Your task to perform on an android device: Open Chrome and go to settings Image 0: 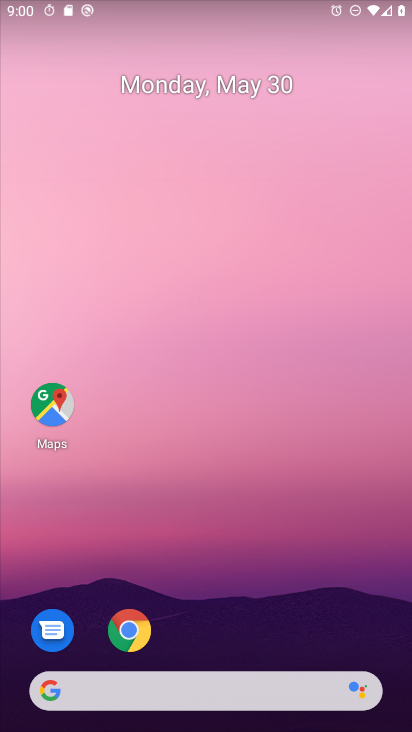
Step 0: drag from (357, 601) to (5, 2)
Your task to perform on an android device: Open Chrome and go to settings Image 1: 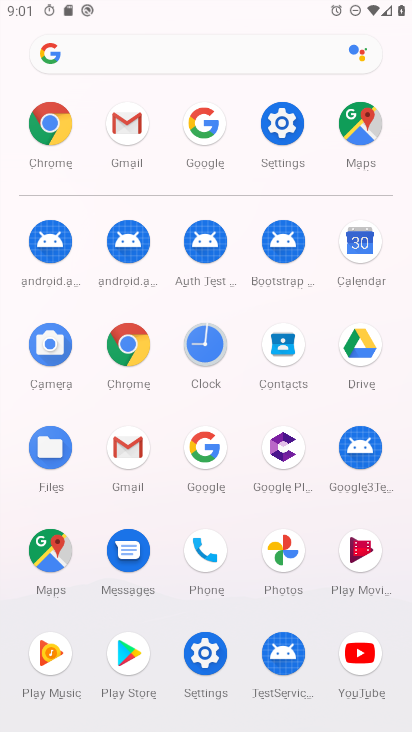
Step 1: click (129, 351)
Your task to perform on an android device: Open Chrome and go to settings Image 2: 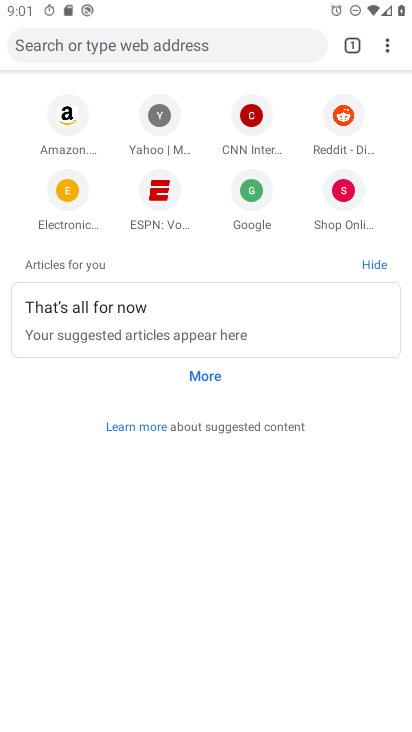
Step 2: click (387, 46)
Your task to perform on an android device: Open Chrome and go to settings Image 3: 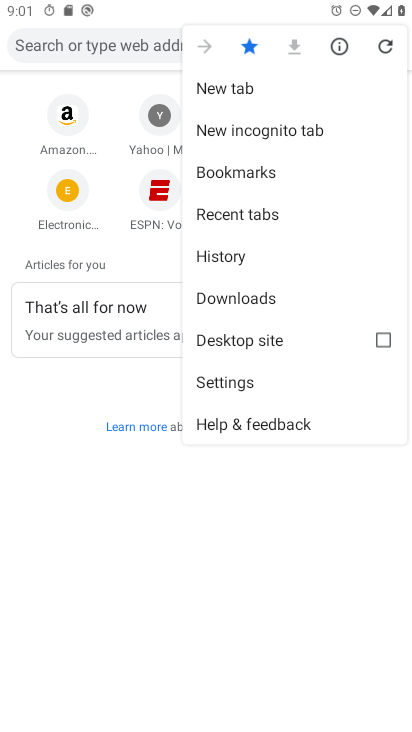
Step 3: click (256, 379)
Your task to perform on an android device: Open Chrome and go to settings Image 4: 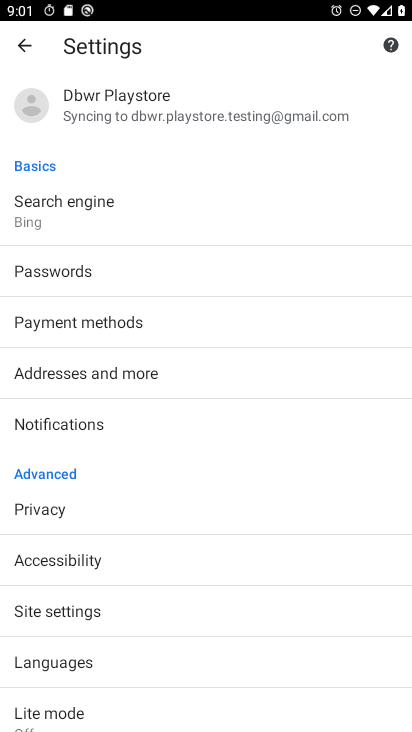
Step 4: task complete